Your task to perform on an android device: remove spam from my inbox in the gmail app Image 0: 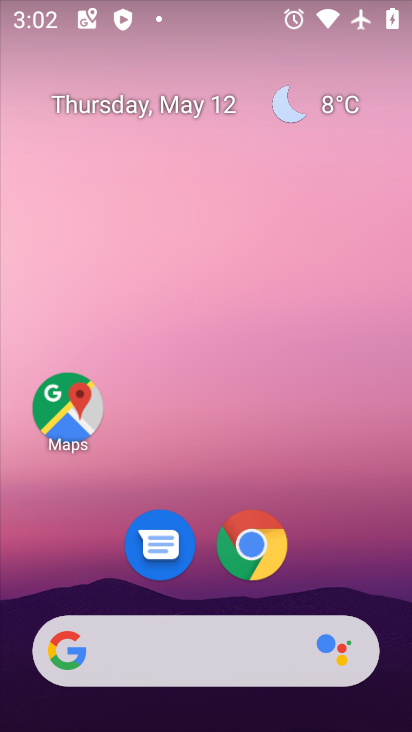
Step 0: drag from (383, 635) to (312, 84)
Your task to perform on an android device: remove spam from my inbox in the gmail app Image 1: 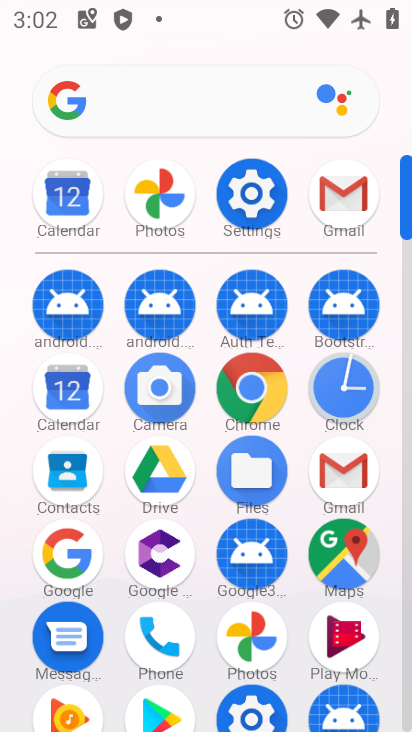
Step 1: click (404, 661)
Your task to perform on an android device: remove spam from my inbox in the gmail app Image 2: 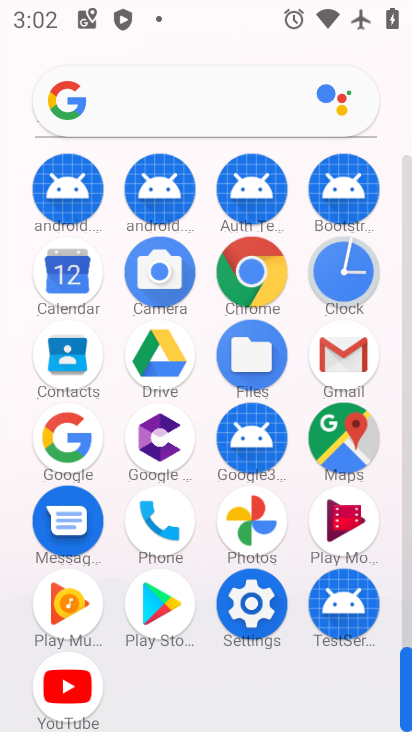
Step 2: click (342, 352)
Your task to perform on an android device: remove spam from my inbox in the gmail app Image 3: 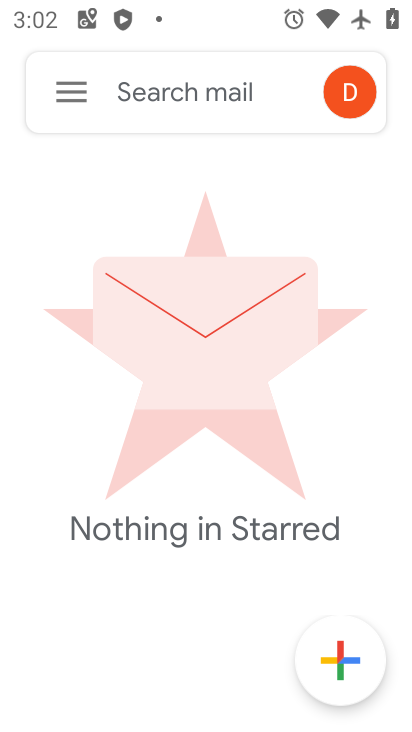
Step 3: click (65, 86)
Your task to perform on an android device: remove spam from my inbox in the gmail app Image 4: 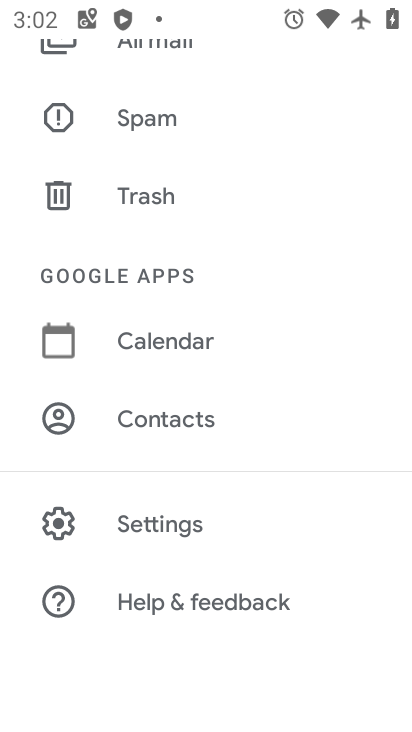
Step 4: click (148, 114)
Your task to perform on an android device: remove spam from my inbox in the gmail app Image 5: 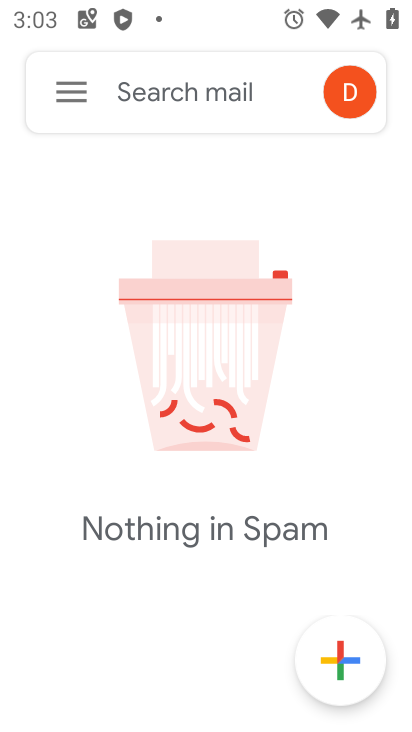
Step 5: task complete